Your task to perform on an android device: What is the speed of light? Image 0: 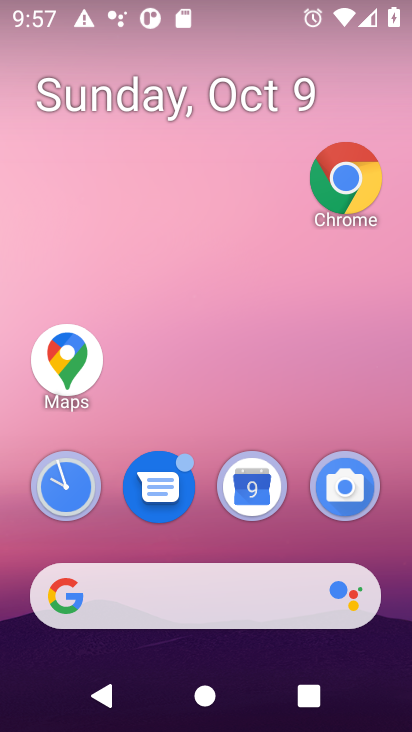
Step 0: drag from (223, 588) to (287, 25)
Your task to perform on an android device: What is the speed of light? Image 1: 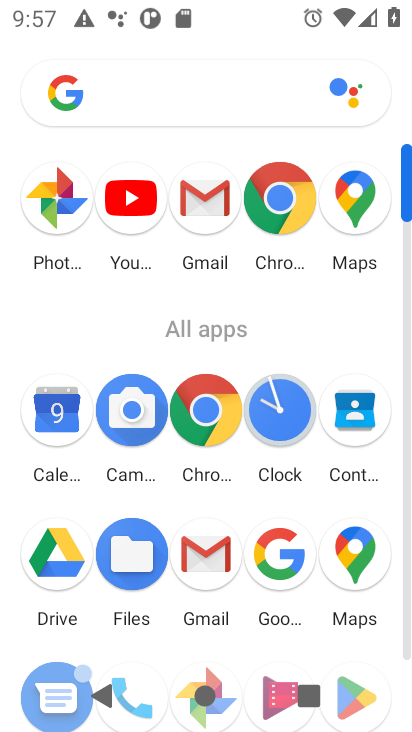
Step 1: click (279, 552)
Your task to perform on an android device: What is the speed of light? Image 2: 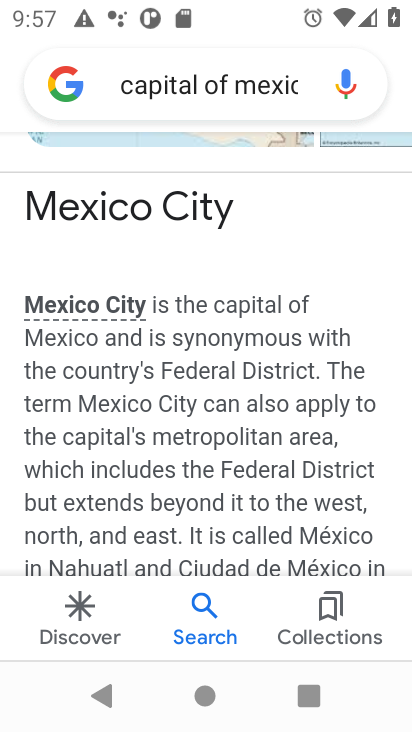
Step 2: drag from (273, 470) to (345, 138)
Your task to perform on an android device: What is the speed of light? Image 3: 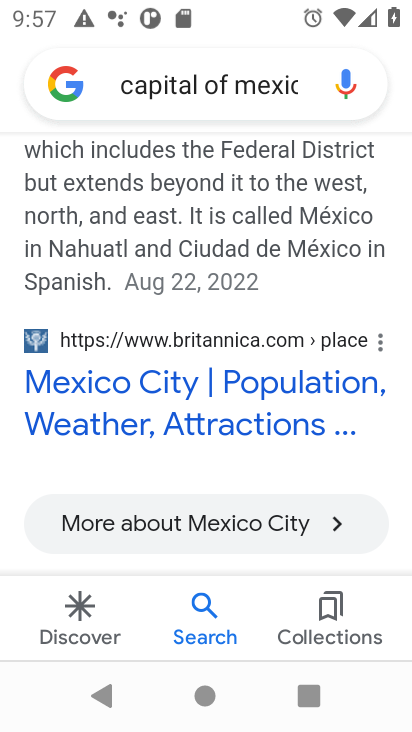
Step 3: click (258, 106)
Your task to perform on an android device: What is the speed of light? Image 4: 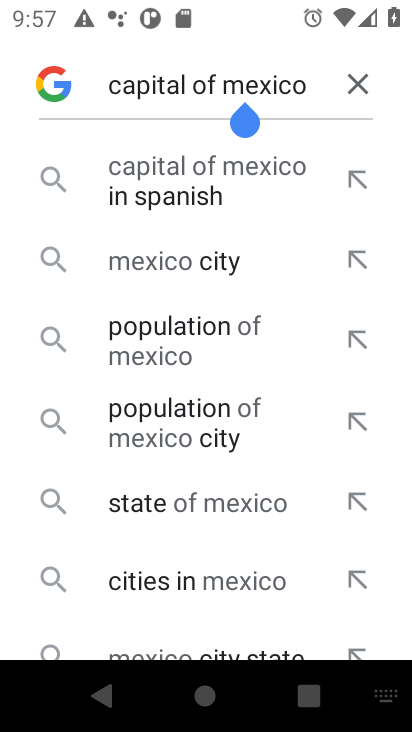
Step 4: click (355, 81)
Your task to perform on an android device: What is the speed of light? Image 5: 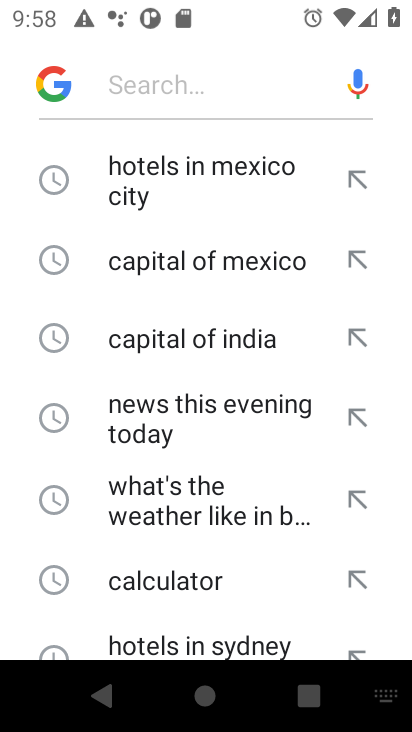
Step 5: type "speed of light"
Your task to perform on an android device: What is the speed of light? Image 6: 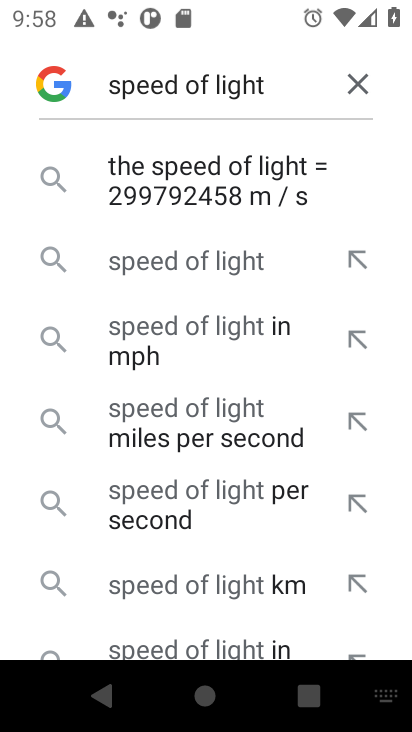
Step 6: click (259, 180)
Your task to perform on an android device: What is the speed of light? Image 7: 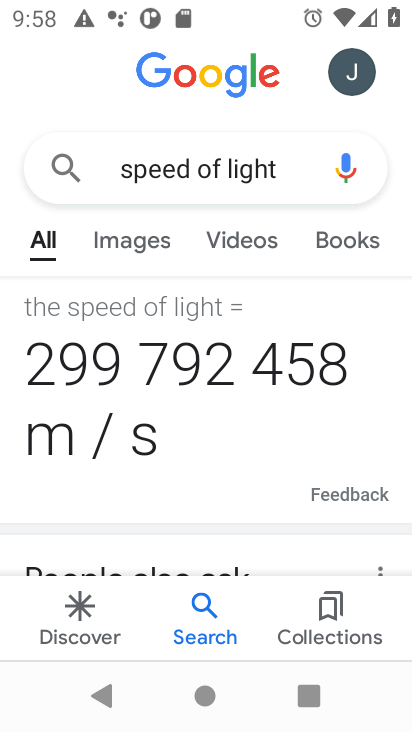
Step 7: task complete